Your task to perform on an android device: toggle translation in the chrome app Image 0: 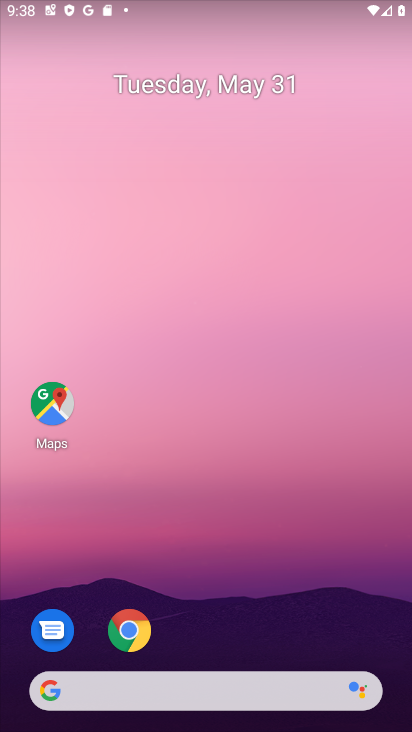
Step 0: click (123, 640)
Your task to perform on an android device: toggle translation in the chrome app Image 1: 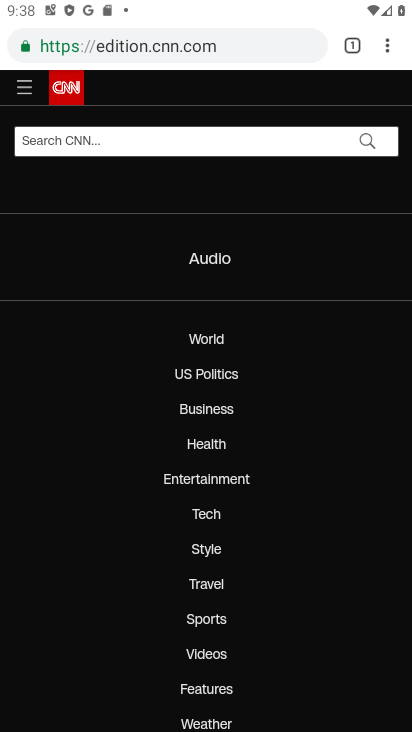
Step 1: click (364, 49)
Your task to perform on an android device: toggle translation in the chrome app Image 2: 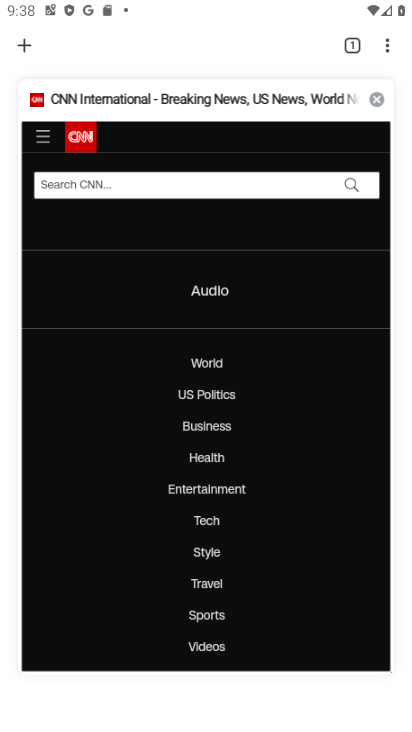
Step 2: click (382, 107)
Your task to perform on an android device: toggle translation in the chrome app Image 3: 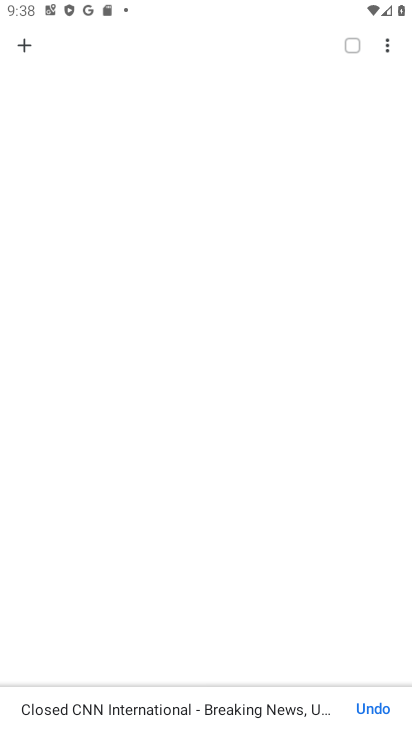
Step 3: click (385, 44)
Your task to perform on an android device: toggle translation in the chrome app Image 4: 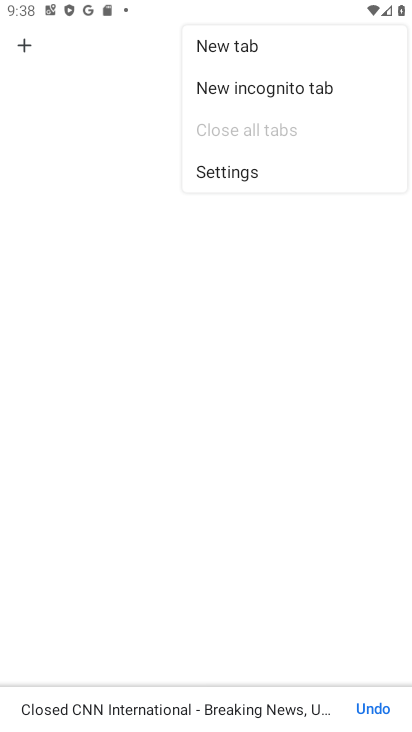
Step 4: click (227, 164)
Your task to perform on an android device: toggle translation in the chrome app Image 5: 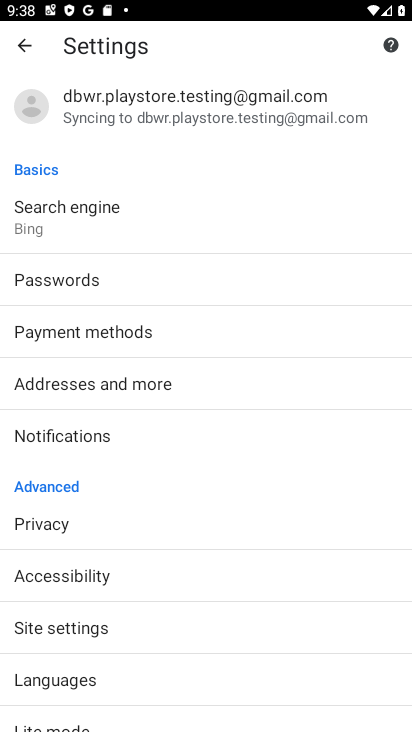
Step 5: drag from (137, 700) to (186, 299)
Your task to perform on an android device: toggle translation in the chrome app Image 6: 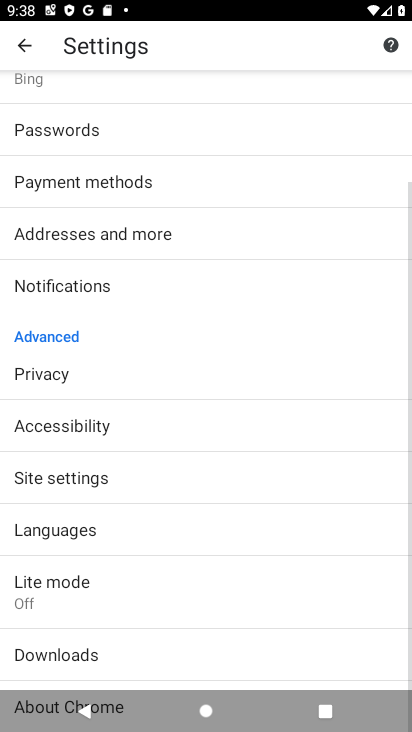
Step 6: click (73, 527)
Your task to perform on an android device: toggle translation in the chrome app Image 7: 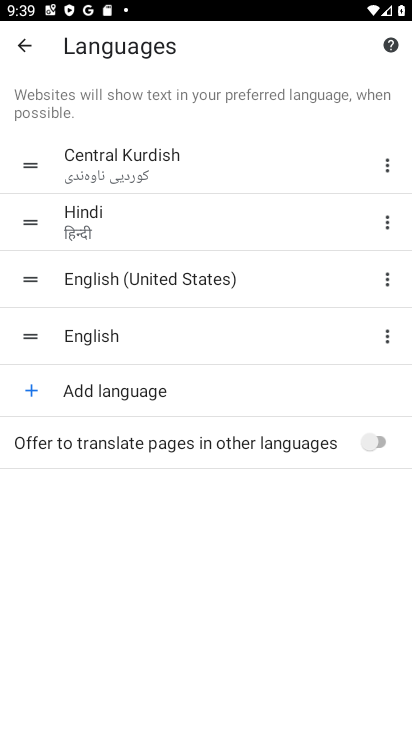
Step 7: click (375, 445)
Your task to perform on an android device: toggle translation in the chrome app Image 8: 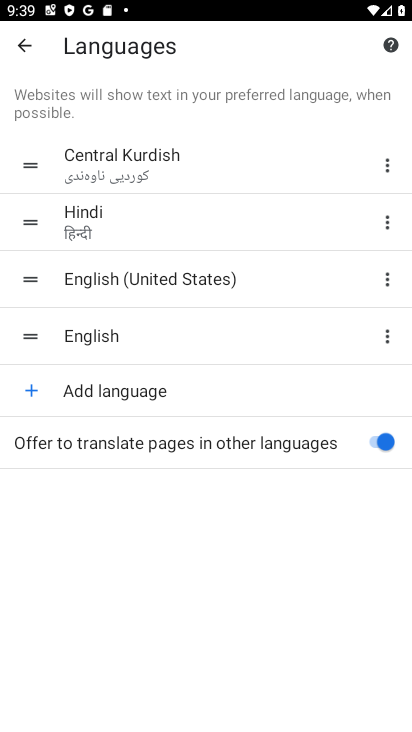
Step 8: task complete